Your task to perform on an android device: Search for logitech g pro on costco, select the first entry, add it to the cart, then select checkout. Image 0: 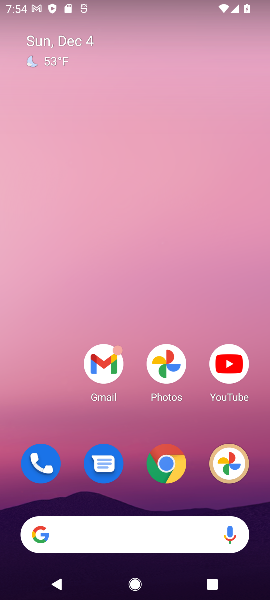
Step 0: click (129, 534)
Your task to perform on an android device: Search for logitech g pro on costco, select the first entry, add it to the cart, then select checkout. Image 1: 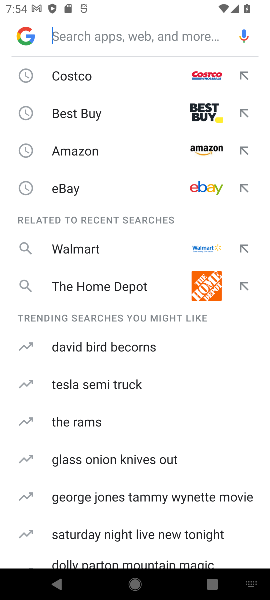
Step 1: click (75, 84)
Your task to perform on an android device: Search for logitech g pro on costco, select the first entry, add it to the cart, then select checkout. Image 2: 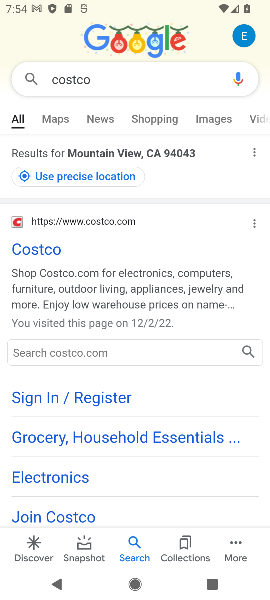
Step 2: click (41, 255)
Your task to perform on an android device: Search for logitech g pro on costco, select the first entry, add it to the cart, then select checkout. Image 3: 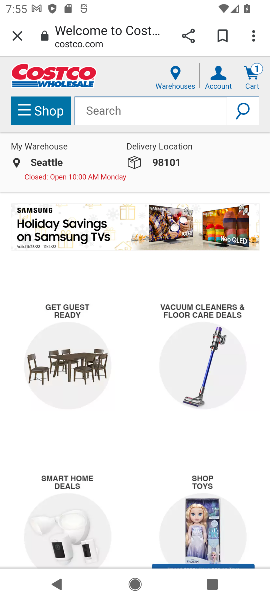
Step 3: task complete